Your task to perform on an android device: Open Android settings Image 0: 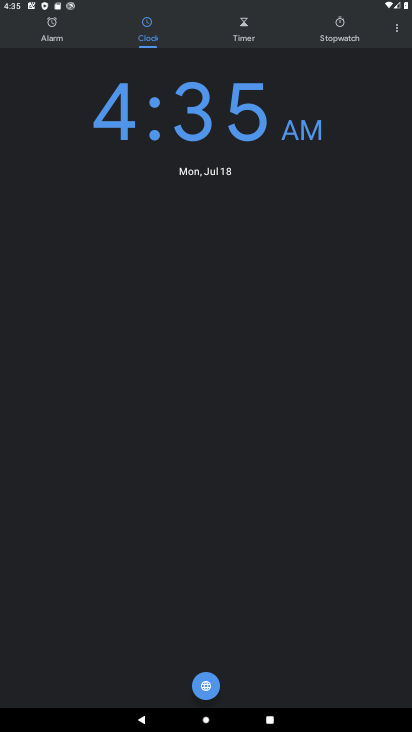
Step 0: press home button
Your task to perform on an android device: Open Android settings Image 1: 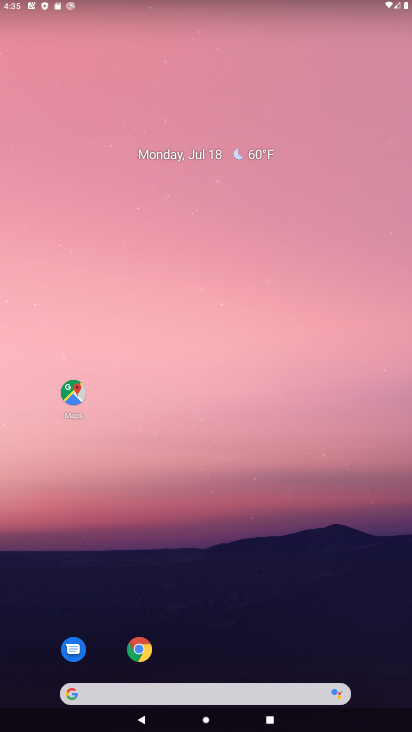
Step 1: drag from (192, 591) to (207, 104)
Your task to perform on an android device: Open Android settings Image 2: 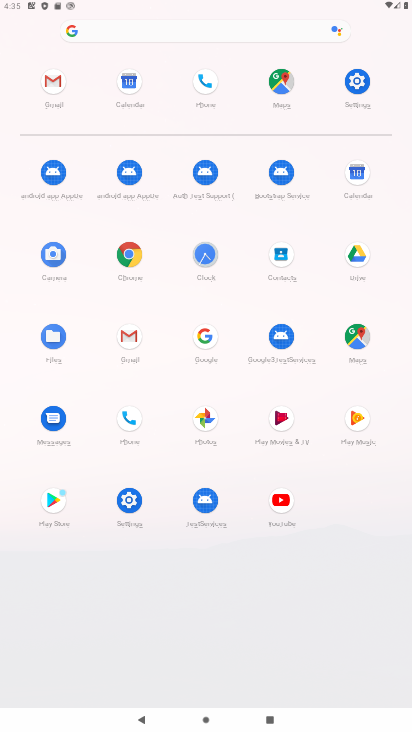
Step 2: click (124, 503)
Your task to perform on an android device: Open Android settings Image 3: 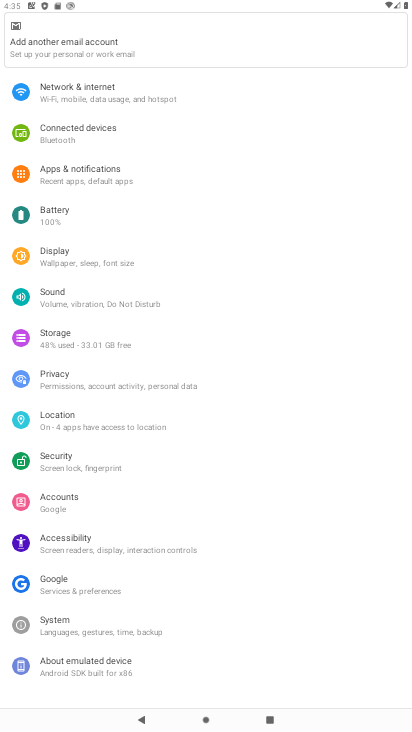
Step 3: drag from (144, 577) to (144, 347)
Your task to perform on an android device: Open Android settings Image 4: 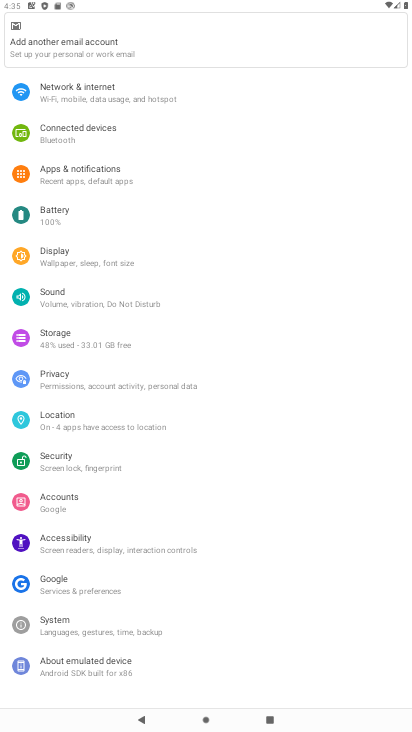
Step 4: click (92, 669)
Your task to perform on an android device: Open Android settings Image 5: 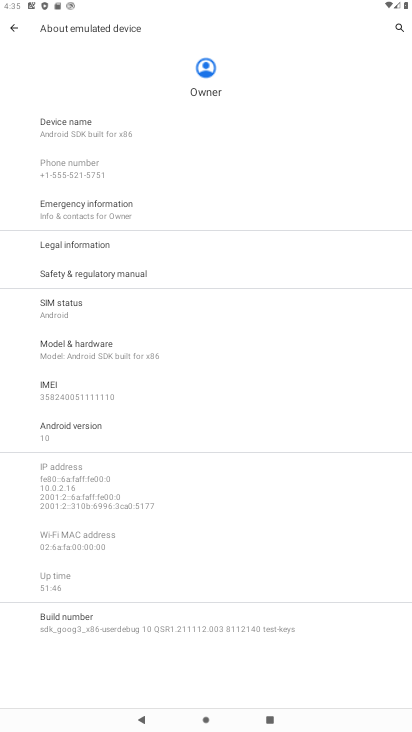
Step 5: click (86, 432)
Your task to perform on an android device: Open Android settings Image 6: 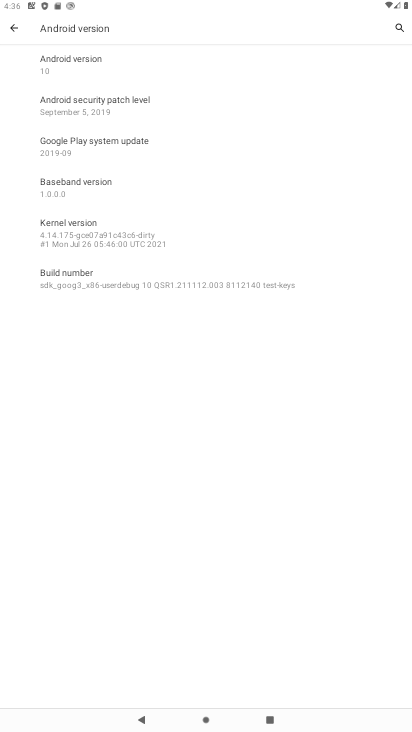
Step 6: task complete